Your task to perform on an android device: turn off notifications in google photos Image 0: 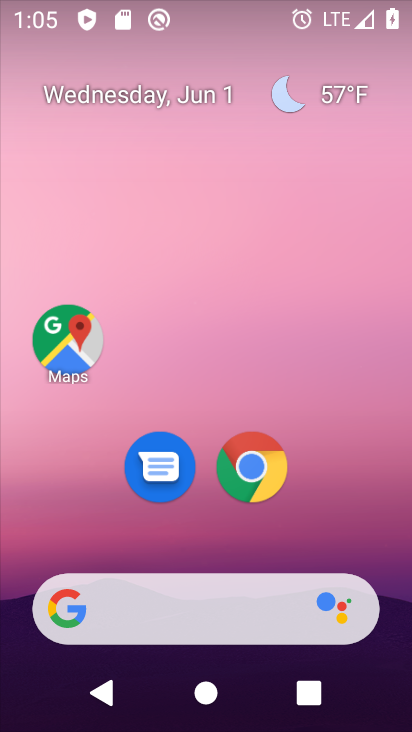
Step 0: drag from (349, 524) to (370, 189)
Your task to perform on an android device: turn off notifications in google photos Image 1: 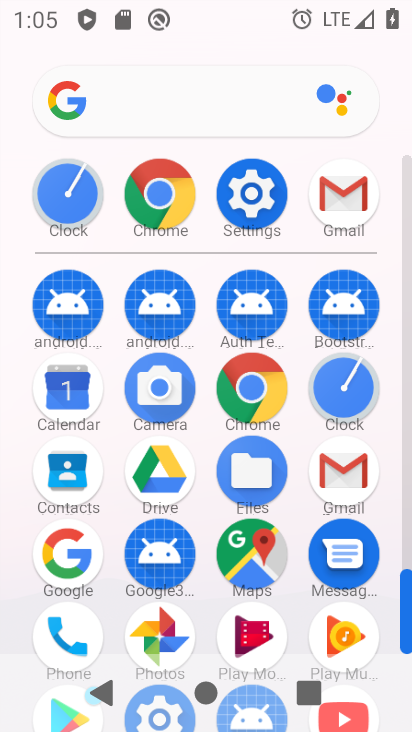
Step 1: drag from (386, 631) to (376, 374)
Your task to perform on an android device: turn off notifications in google photos Image 2: 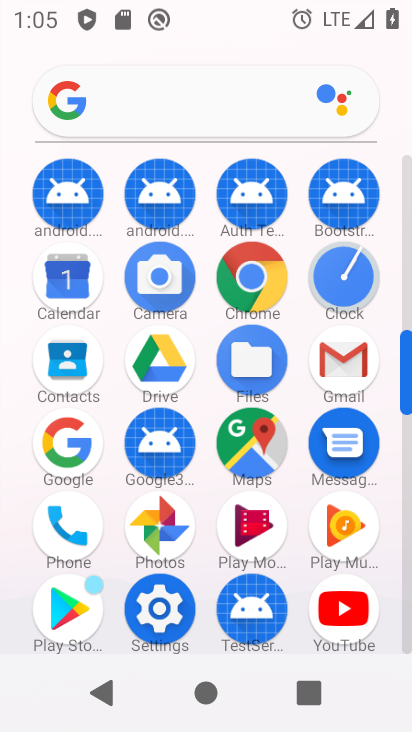
Step 2: click (154, 525)
Your task to perform on an android device: turn off notifications in google photos Image 3: 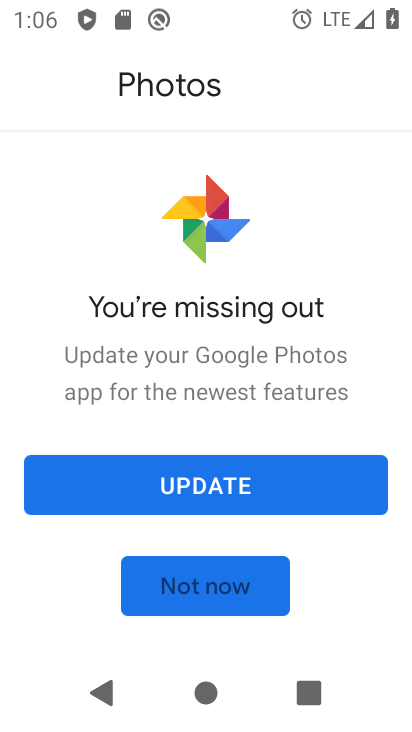
Step 3: click (307, 491)
Your task to perform on an android device: turn off notifications in google photos Image 4: 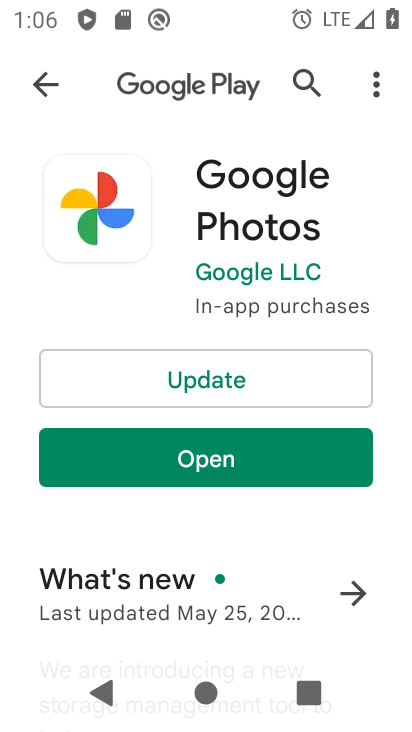
Step 4: click (252, 387)
Your task to perform on an android device: turn off notifications in google photos Image 5: 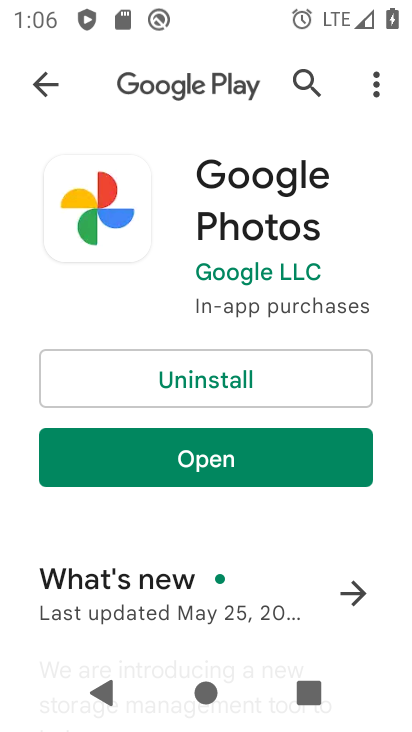
Step 5: click (279, 467)
Your task to perform on an android device: turn off notifications in google photos Image 6: 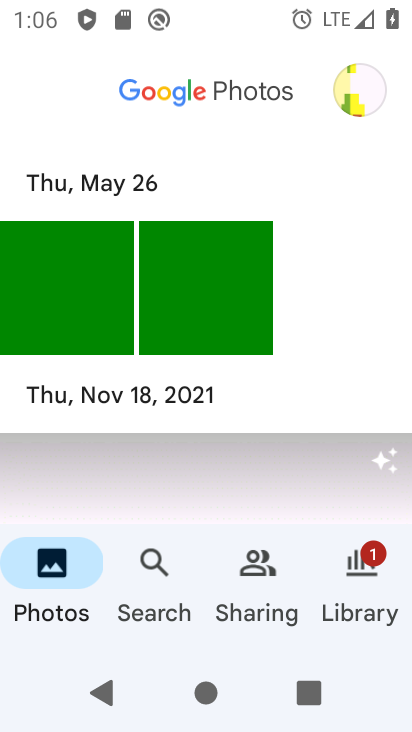
Step 6: click (369, 96)
Your task to perform on an android device: turn off notifications in google photos Image 7: 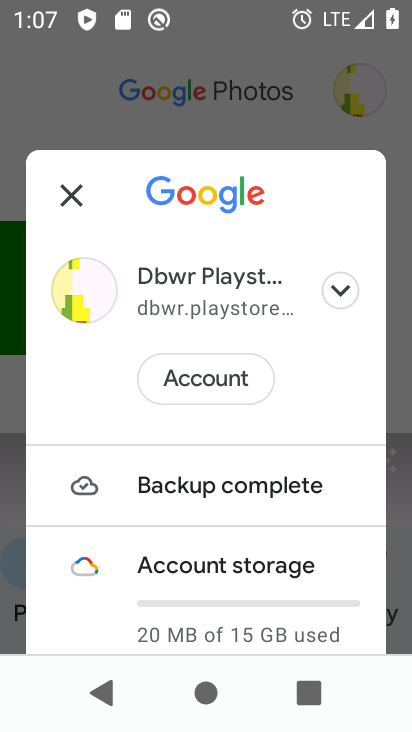
Step 7: drag from (333, 545) to (330, 292)
Your task to perform on an android device: turn off notifications in google photos Image 8: 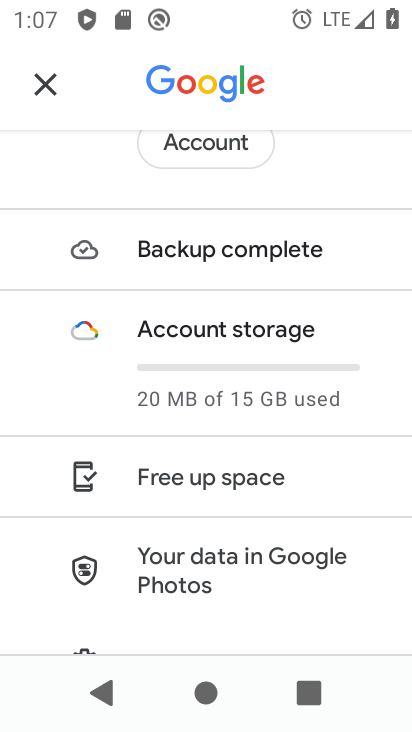
Step 8: drag from (345, 601) to (349, 398)
Your task to perform on an android device: turn off notifications in google photos Image 9: 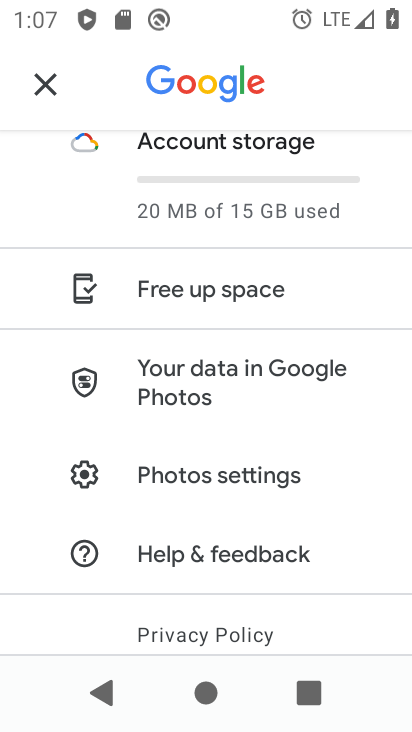
Step 9: click (274, 483)
Your task to perform on an android device: turn off notifications in google photos Image 10: 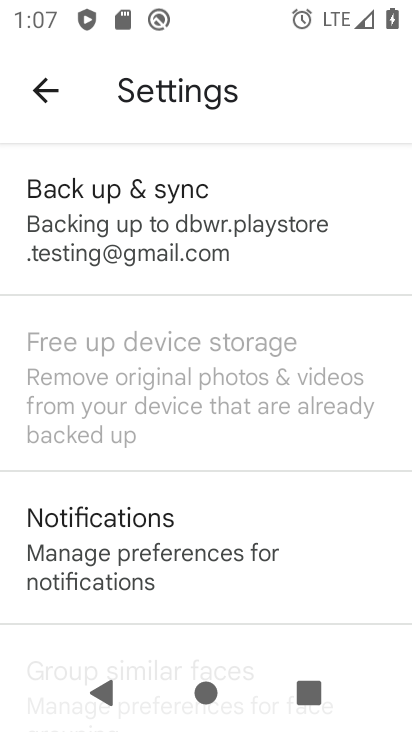
Step 10: click (237, 248)
Your task to perform on an android device: turn off notifications in google photos Image 11: 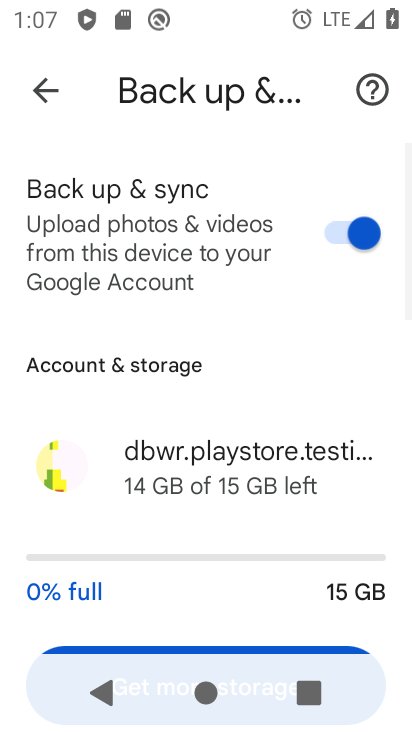
Step 11: drag from (265, 564) to (267, 341)
Your task to perform on an android device: turn off notifications in google photos Image 12: 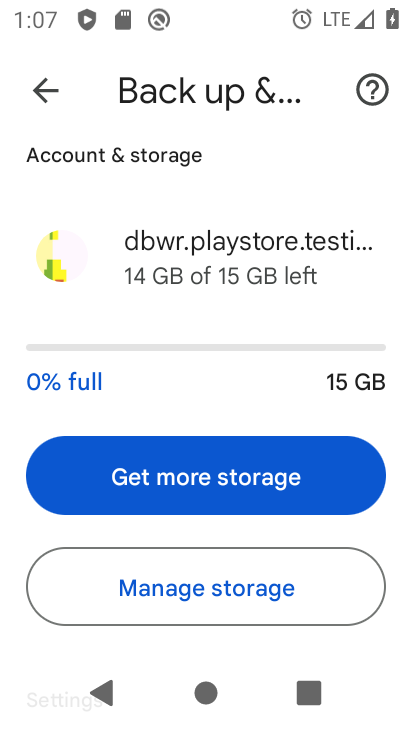
Step 12: drag from (339, 626) to (340, 378)
Your task to perform on an android device: turn off notifications in google photos Image 13: 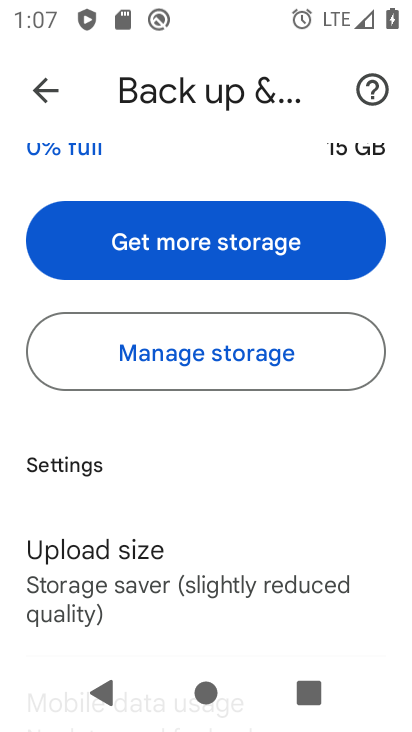
Step 13: click (38, 92)
Your task to perform on an android device: turn off notifications in google photos Image 14: 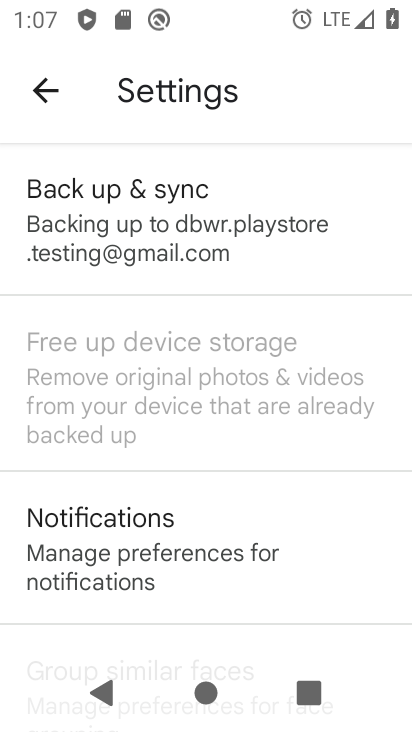
Step 14: click (196, 539)
Your task to perform on an android device: turn off notifications in google photos Image 15: 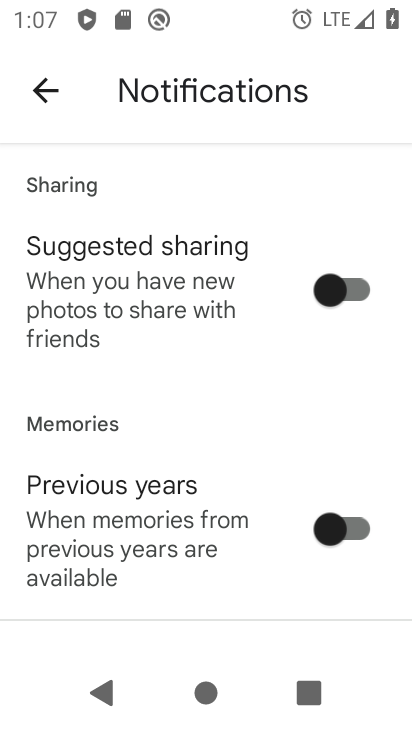
Step 15: drag from (274, 539) to (270, 303)
Your task to perform on an android device: turn off notifications in google photos Image 16: 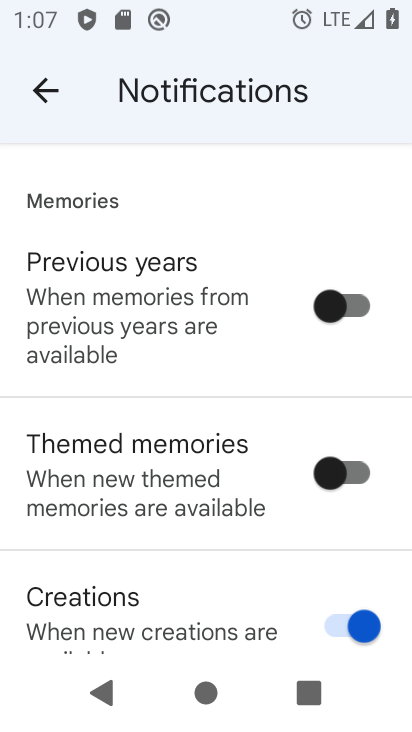
Step 16: drag from (270, 538) to (272, 374)
Your task to perform on an android device: turn off notifications in google photos Image 17: 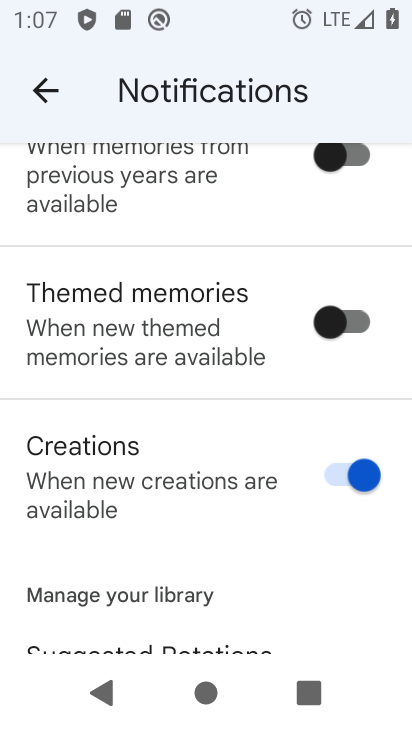
Step 17: drag from (274, 577) to (272, 363)
Your task to perform on an android device: turn off notifications in google photos Image 18: 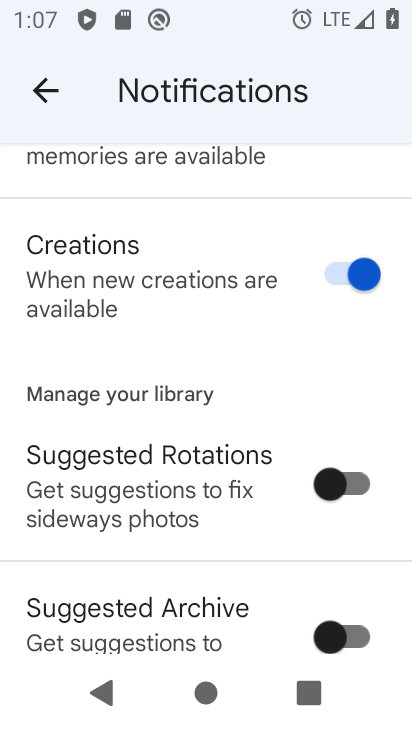
Step 18: drag from (269, 597) to (275, 417)
Your task to perform on an android device: turn off notifications in google photos Image 19: 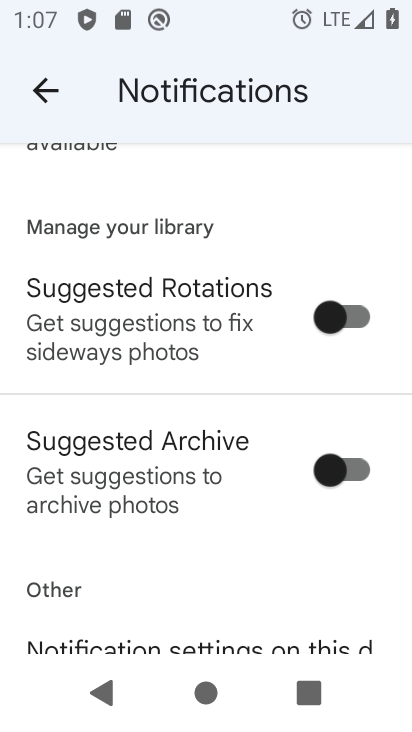
Step 19: drag from (275, 548) to (254, 342)
Your task to perform on an android device: turn off notifications in google photos Image 20: 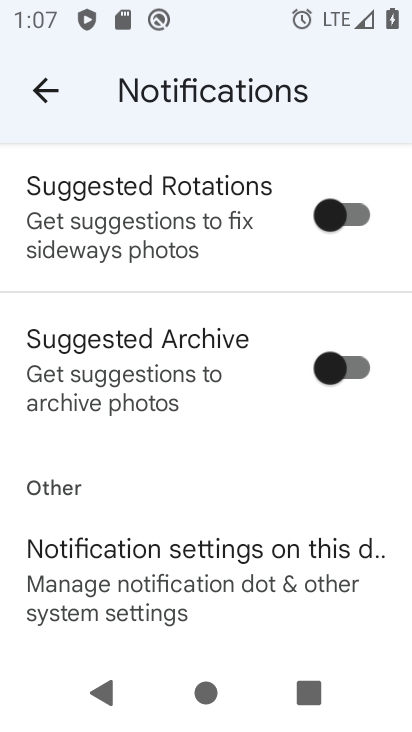
Step 20: drag from (248, 544) to (248, 293)
Your task to perform on an android device: turn off notifications in google photos Image 21: 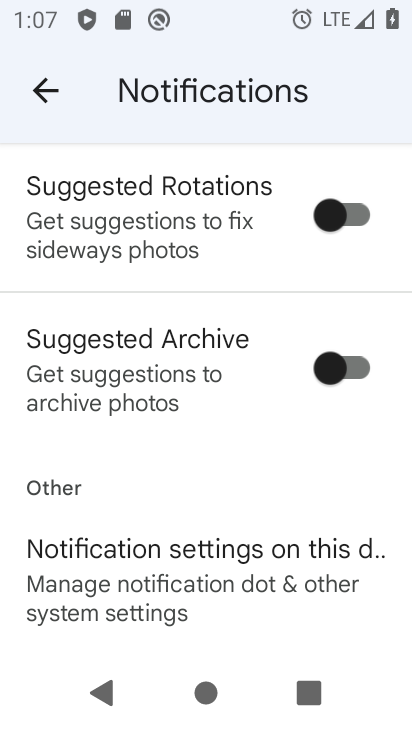
Step 21: drag from (257, 560) to (254, 366)
Your task to perform on an android device: turn off notifications in google photos Image 22: 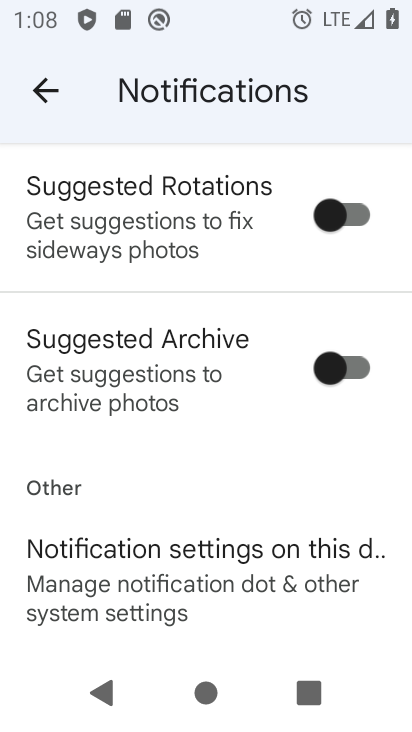
Step 22: click (272, 573)
Your task to perform on an android device: turn off notifications in google photos Image 23: 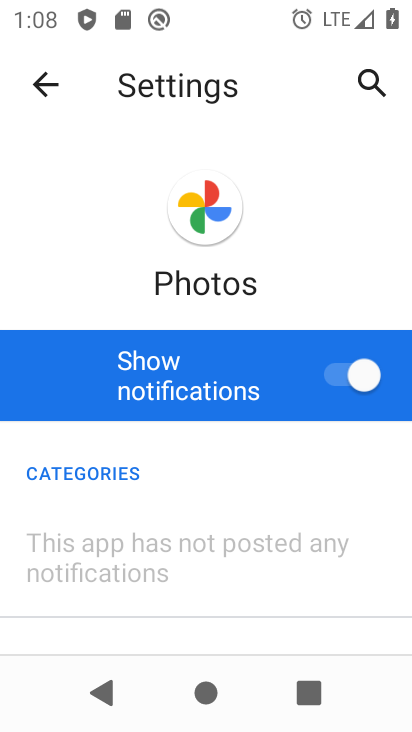
Step 23: click (347, 378)
Your task to perform on an android device: turn off notifications in google photos Image 24: 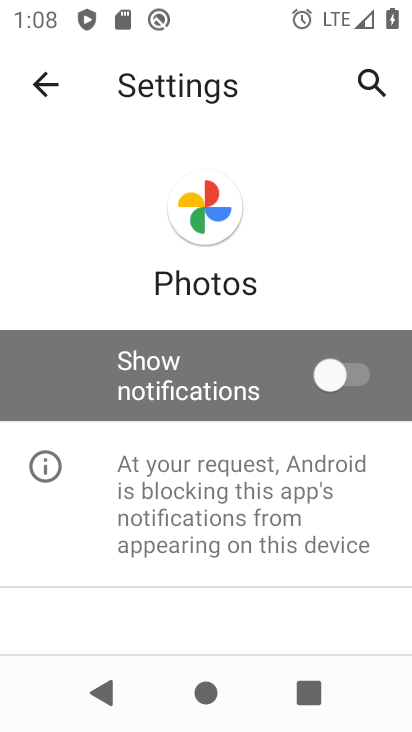
Step 24: task complete